Your task to perform on an android device: check google app version Image 0: 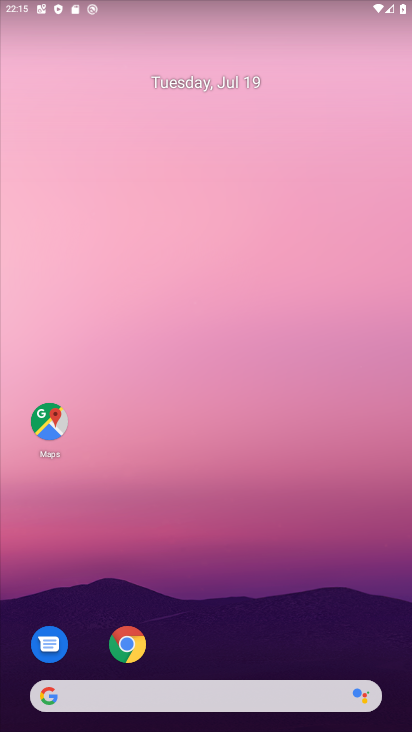
Step 0: drag from (204, 652) to (291, 126)
Your task to perform on an android device: check google app version Image 1: 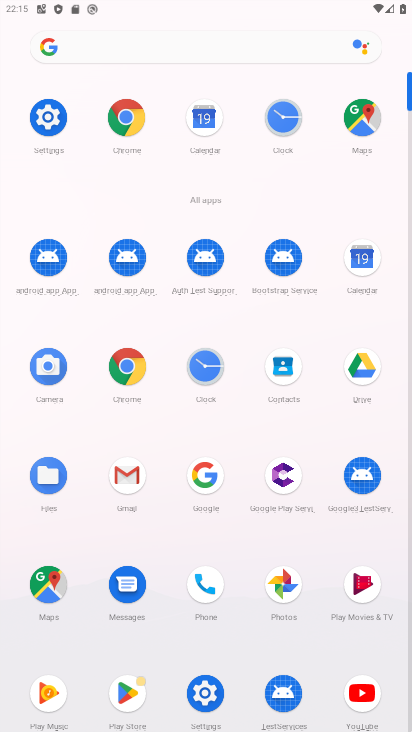
Step 1: click (191, 479)
Your task to perform on an android device: check google app version Image 2: 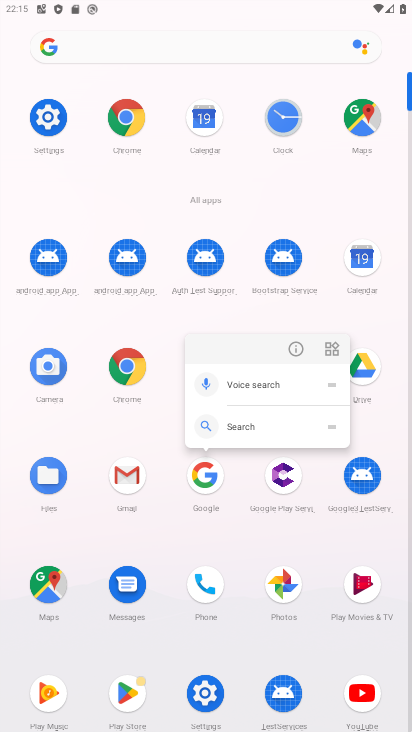
Step 2: click (287, 347)
Your task to perform on an android device: check google app version Image 3: 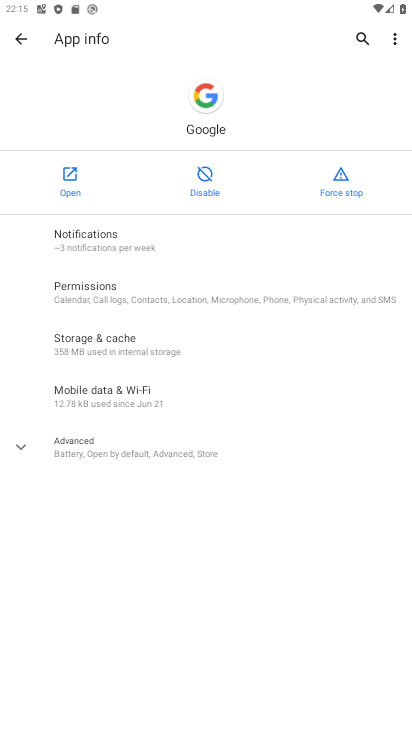
Step 3: click (108, 440)
Your task to perform on an android device: check google app version Image 4: 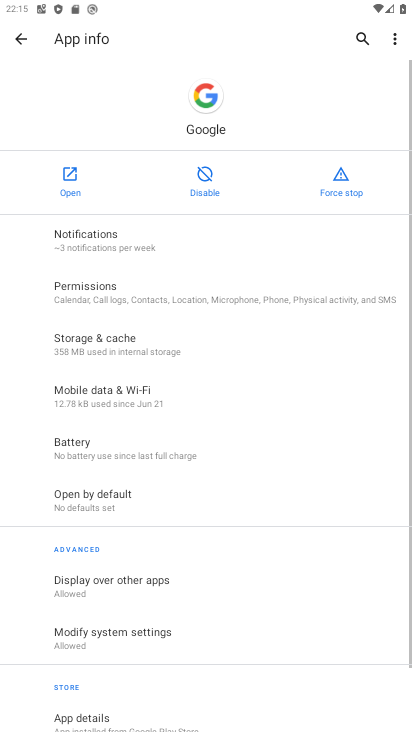
Step 4: task complete